Your task to perform on an android device: Search for "razer huntsman" on newegg, select the first entry, and add it to the cart. Image 0: 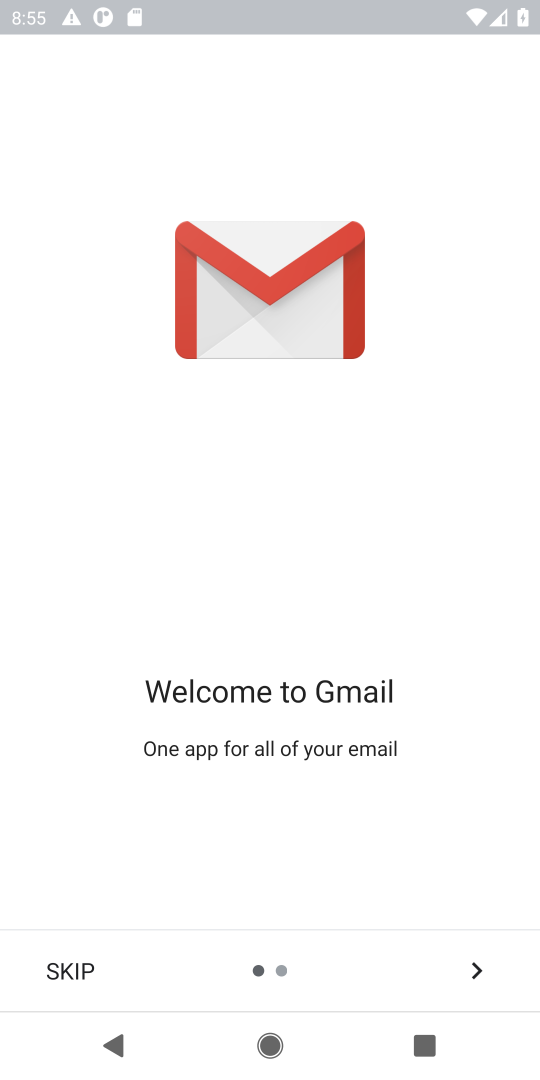
Step 0: task complete